Your task to perform on an android device: turn pop-ups on in chrome Image 0: 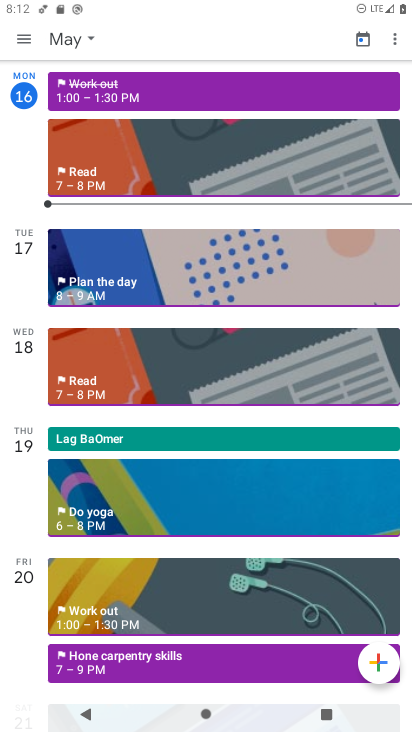
Step 0: press back button
Your task to perform on an android device: turn pop-ups on in chrome Image 1: 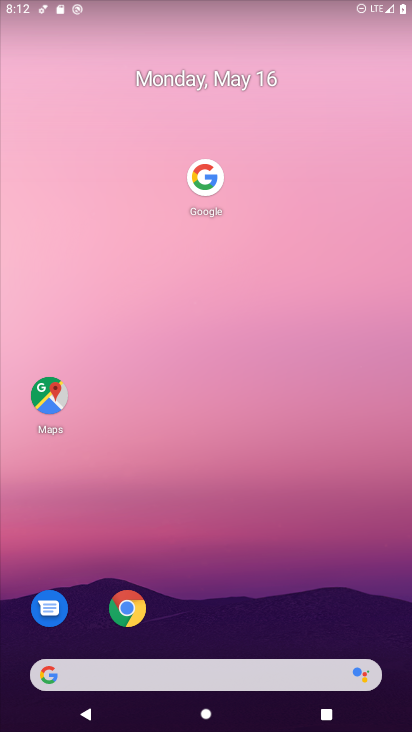
Step 1: click (127, 608)
Your task to perform on an android device: turn pop-ups on in chrome Image 2: 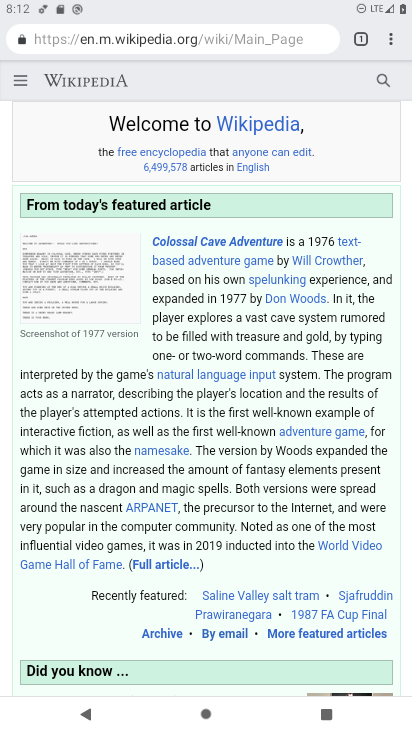
Step 2: click (391, 39)
Your task to perform on an android device: turn pop-ups on in chrome Image 3: 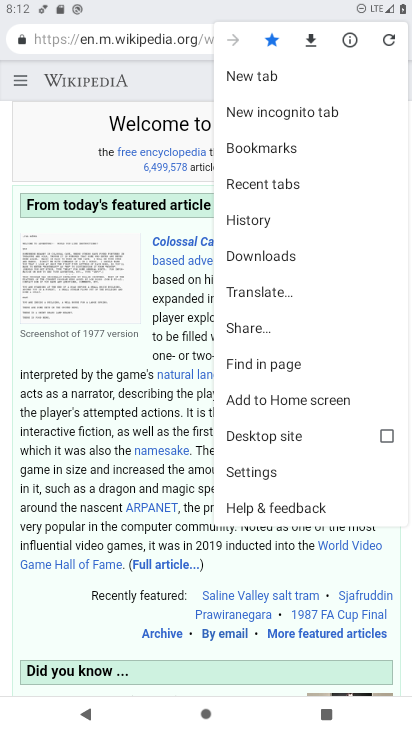
Step 3: click (241, 471)
Your task to perform on an android device: turn pop-ups on in chrome Image 4: 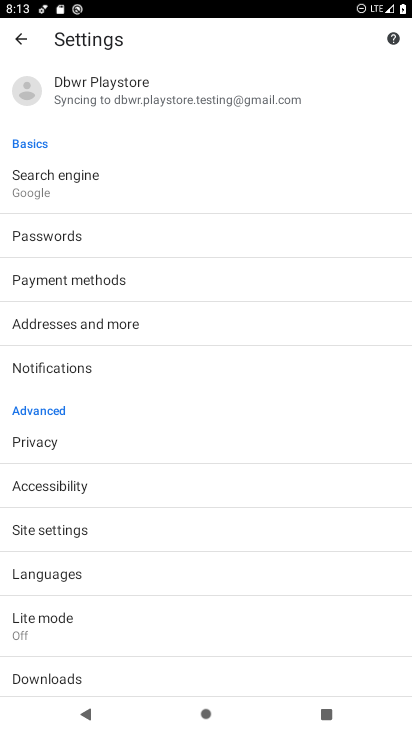
Step 4: click (63, 528)
Your task to perform on an android device: turn pop-ups on in chrome Image 5: 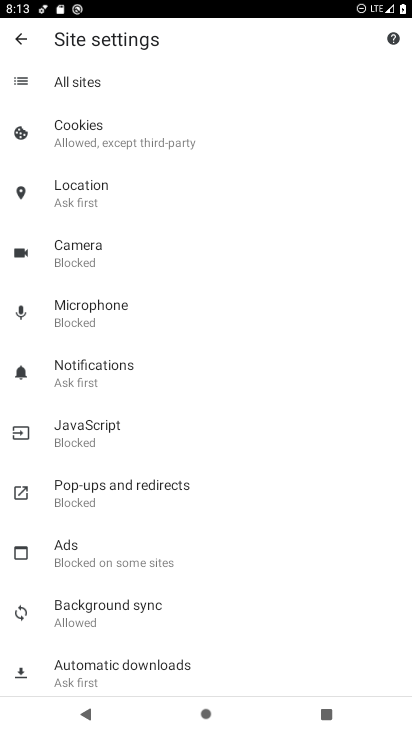
Step 5: click (85, 486)
Your task to perform on an android device: turn pop-ups on in chrome Image 6: 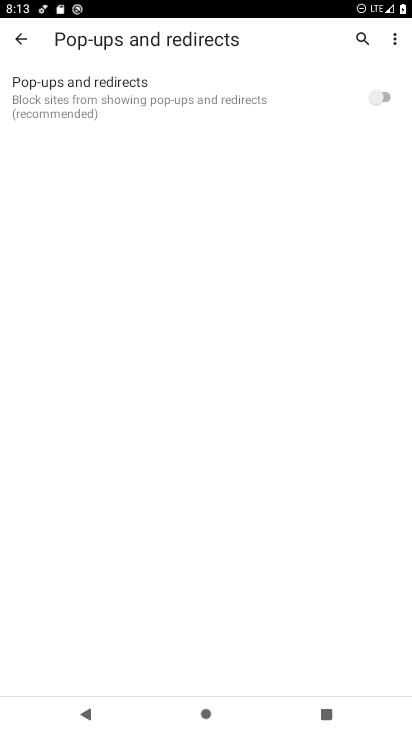
Step 6: click (377, 94)
Your task to perform on an android device: turn pop-ups on in chrome Image 7: 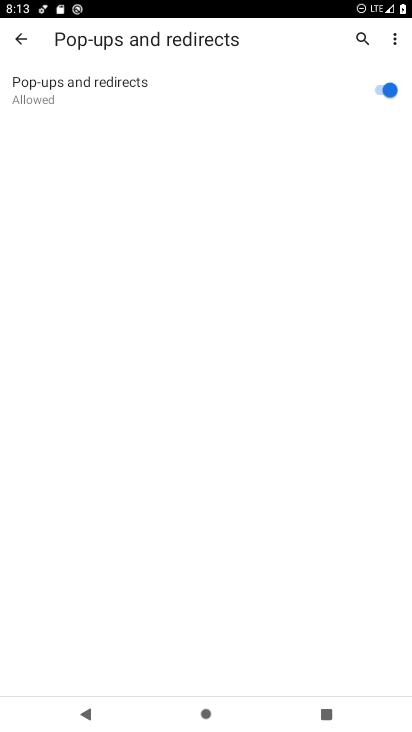
Step 7: task complete